Your task to perform on an android device: Go to sound settings Image 0: 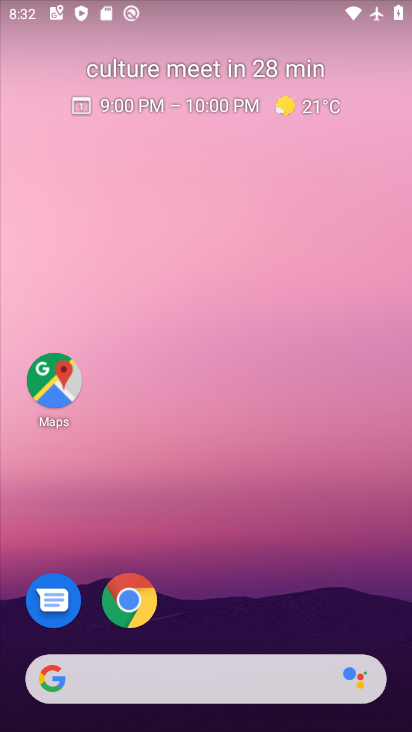
Step 0: drag from (381, 610) to (338, 189)
Your task to perform on an android device: Go to sound settings Image 1: 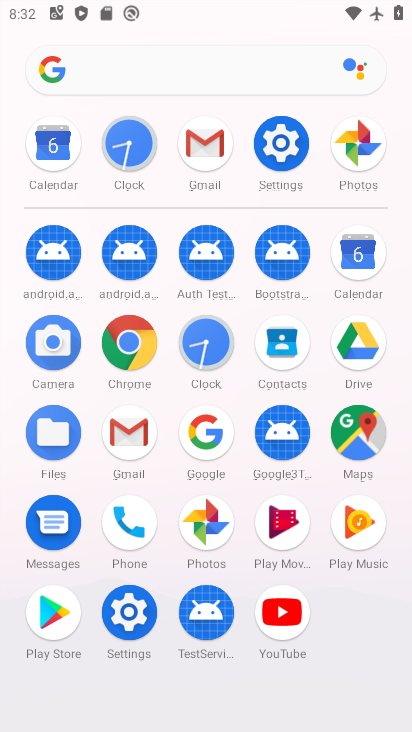
Step 1: click (129, 608)
Your task to perform on an android device: Go to sound settings Image 2: 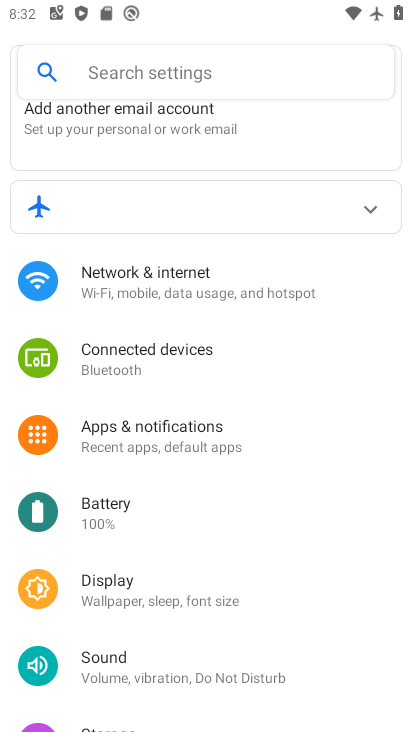
Step 2: drag from (289, 646) to (294, 399)
Your task to perform on an android device: Go to sound settings Image 3: 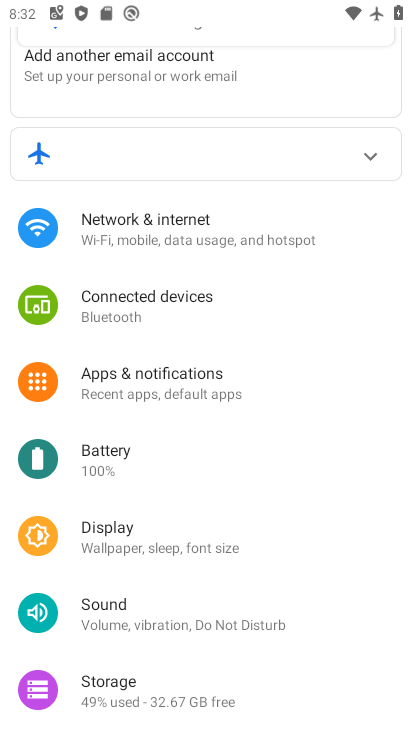
Step 3: click (86, 603)
Your task to perform on an android device: Go to sound settings Image 4: 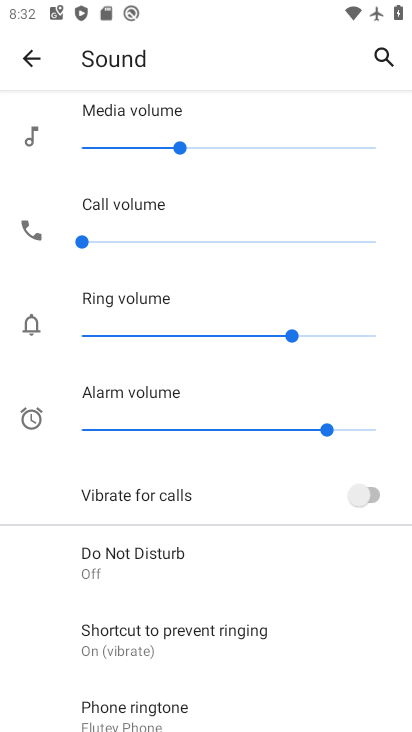
Step 4: task complete